Your task to perform on an android device: set an alarm Image 0: 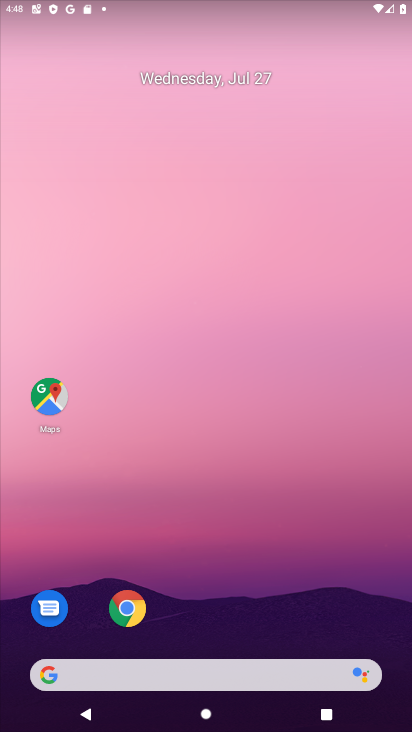
Step 0: drag from (203, 637) to (65, 195)
Your task to perform on an android device: set an alarm Image 1: 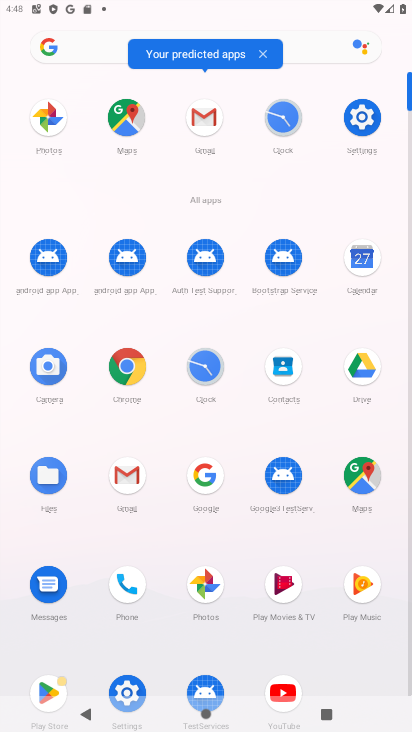
Step 1: click (213, 348)
Your task to perform on an android device: set an alarm Image 2: 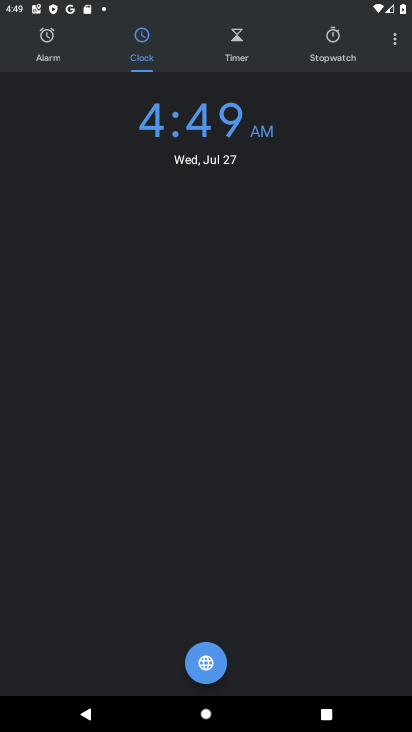
Step 2: click (46, 48)
Your task to perform on an android device: set an alarm Image 3: 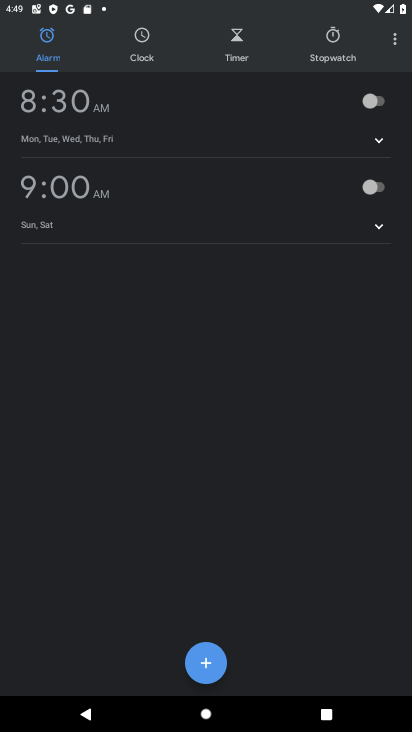
Step 3: click (201, 672)
Your task to perform on an android device: set an alarm Image 4: 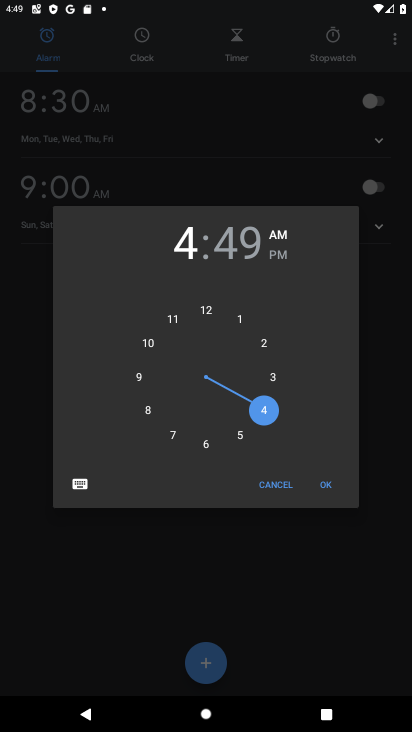
Step 4: click (318, 480)
Your task to perform on an android device: set an alarm Image 5: 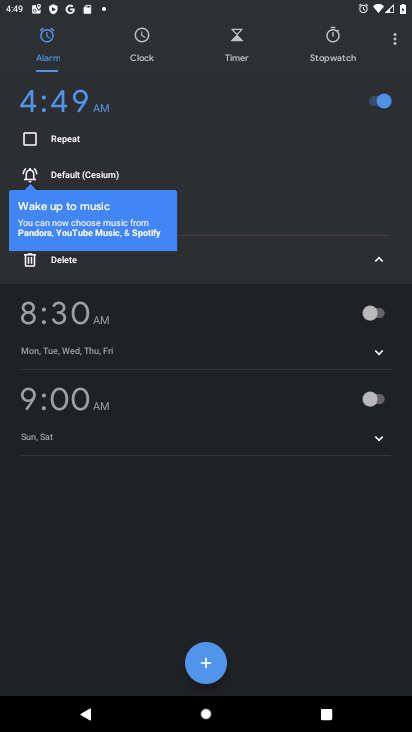
Step 5: task complete